Your task to perform on an android device: Open battery settings Image 0: 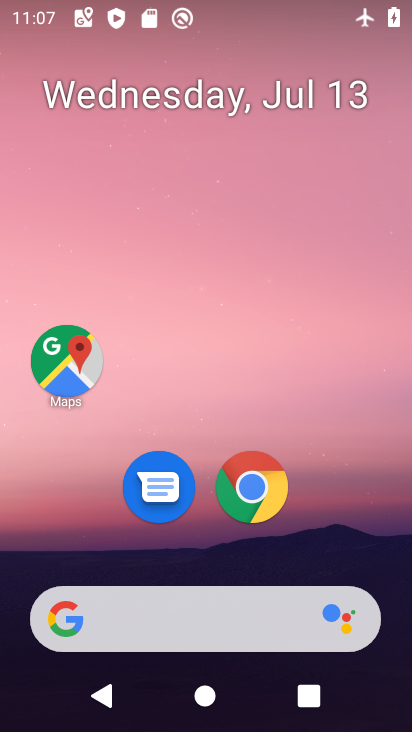
Step 0: drag from (200, 535) to (206, 88)
Your task to perform on an android device: Open battery settings Image 1: 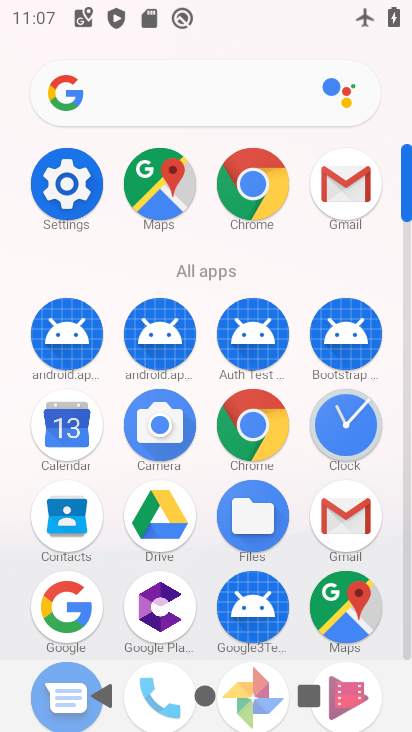
Step 1: click (82, 199)
Your task to perform on an android device: Open battery settings Image 2: 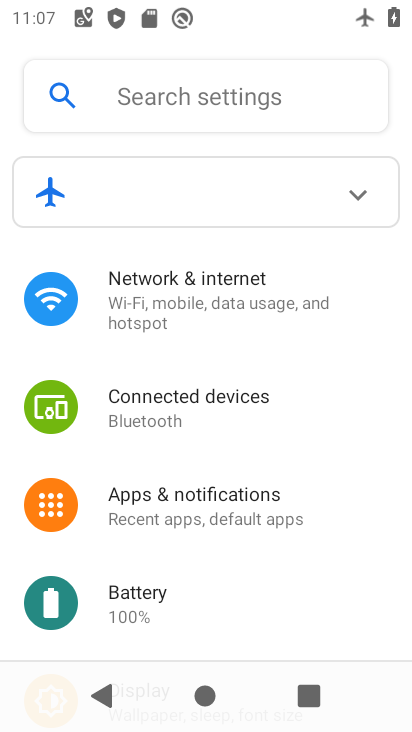
Step 2: click (145, 599)
Your task to perform on an android device: Open battery settings Image 3: 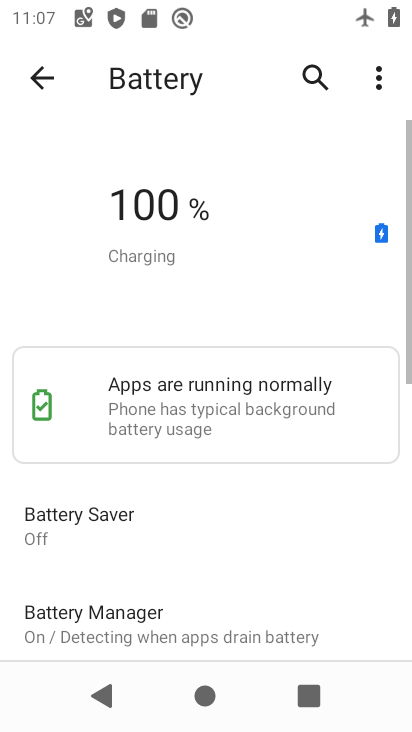
Step 3: task complete